Your task to perform on an android device: Is it going to rain tomorrow? Image 0: 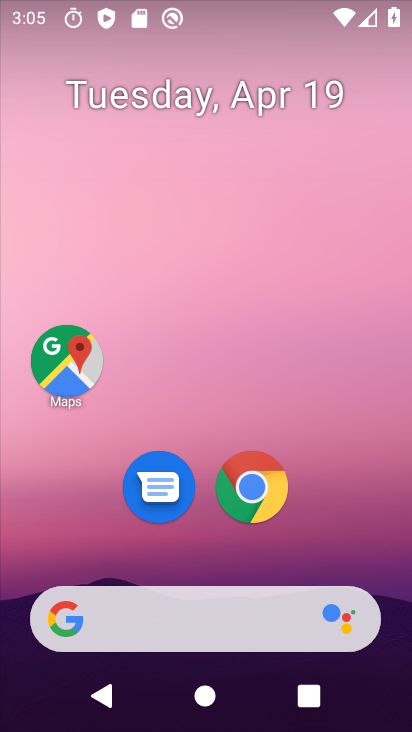
Step 0: click (157, 631)
Your task to perform on an android device: Is it going to rain tomorrow? Image 1: 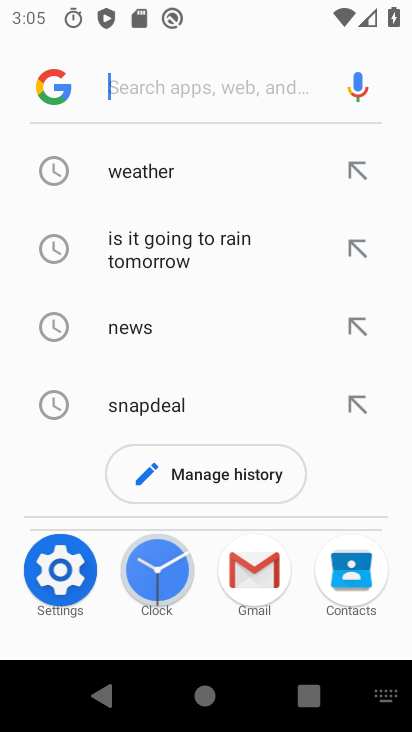
Step 1: click (152, 80)
Your task to perform on an android device: Is it going to rain tomorrow? Image 2: 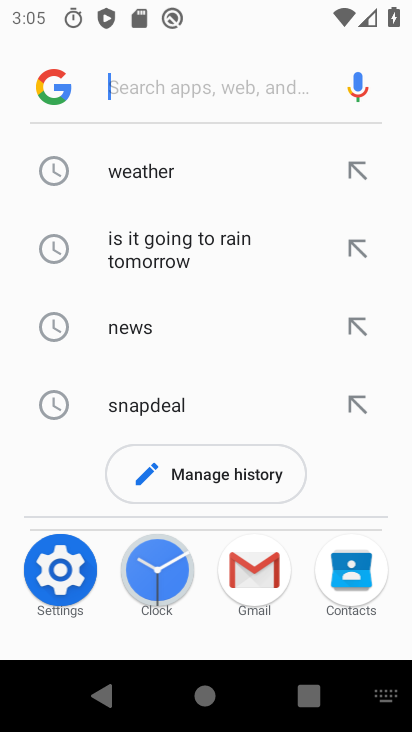
Step 2: click (163, 236)
Your task to perform on an android device: Is it going to rain tomorrow? Image 3: 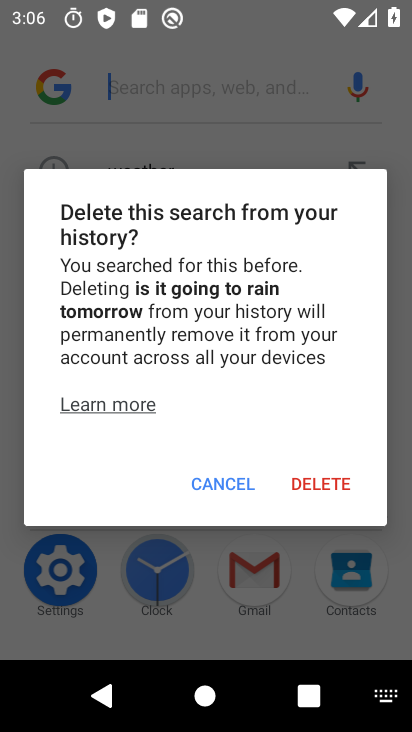
Step 3: click (242, 478)
Your task to perform on an android device: Is it going to rain tomorrow? Image 4: 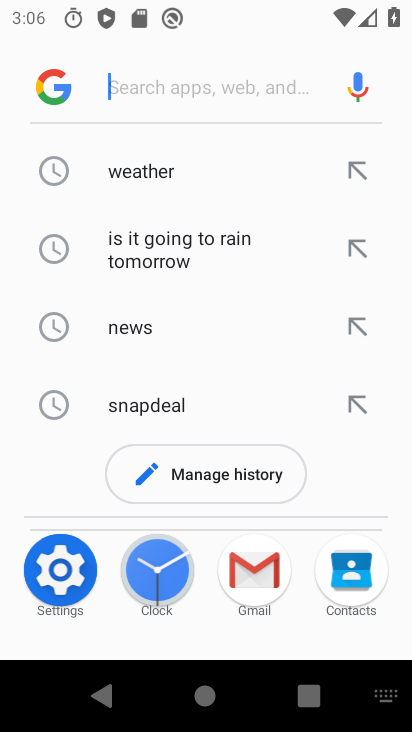
Step 4: click (148, 250)
Your task to perform on an android device: Is it going to rain tomorrow? Image 5: 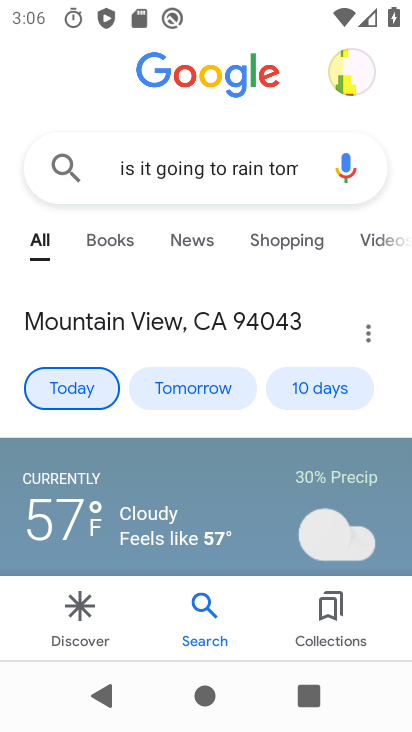
Step 5: task complete